Your task to perform on an android device: Open Maps and search for coffee Image 0: 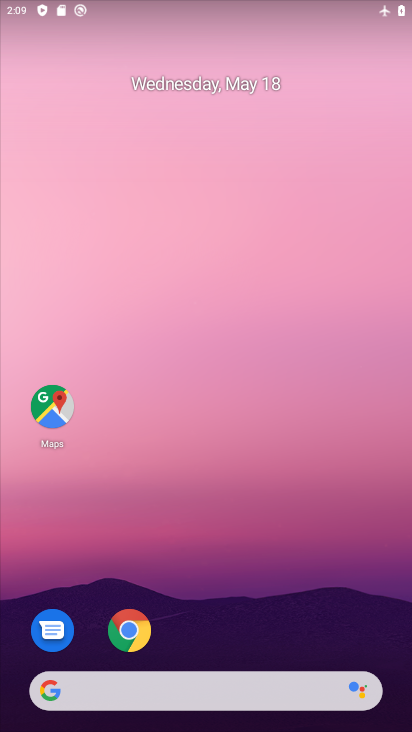
Step 0: click (67, 413)
Your task to perform on an android device: Open Maps and search for coffee Image 1: 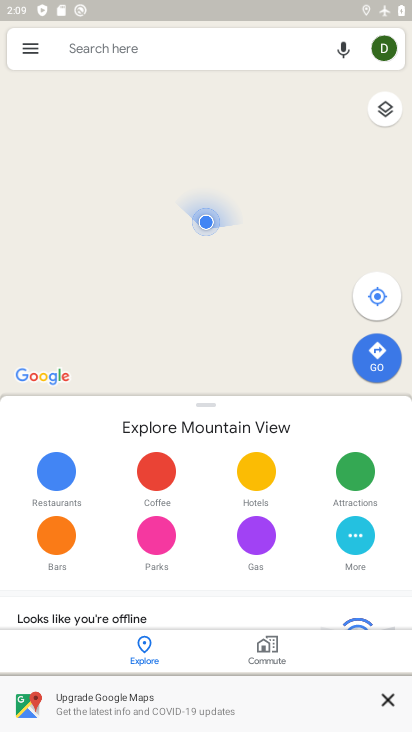
Step 1: click (170, 48)
Your task to perform on an android device: Open Maps and search for coffee Image 2: 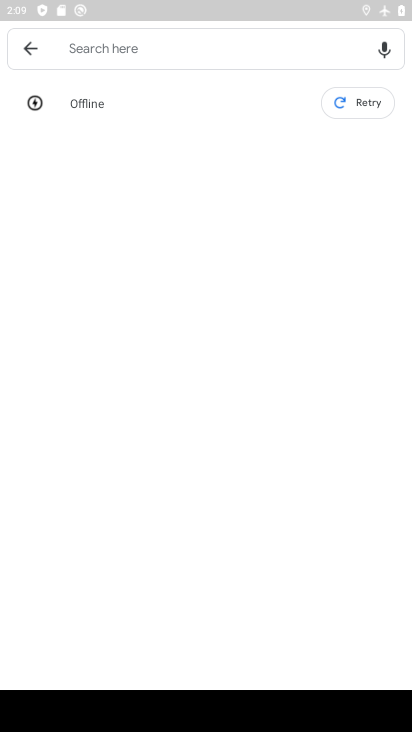
Step 2: type "coffee"
Your task to perform on an android device: Open Maps and search for coffee Image 3: 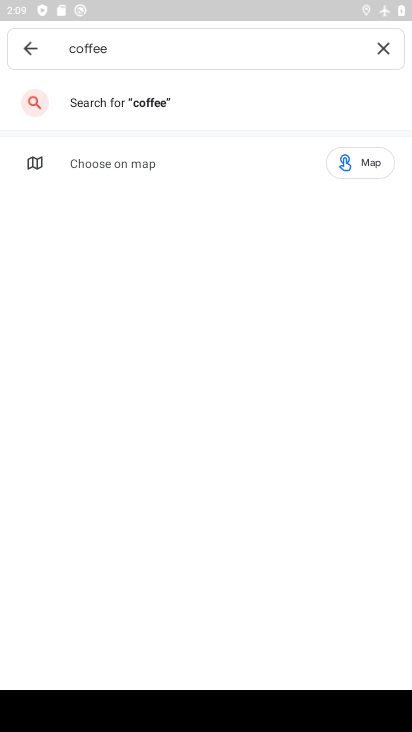
Step 3: click (149, 105)
Your task to perform on an android device: Open Maps and search for coffee Image 4: 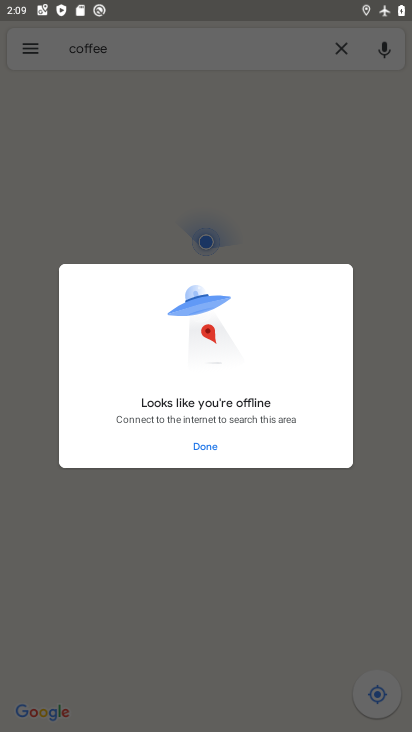
Step 4: task complete